Your task to perform on an android device: Go to accessibility settings Image 0: 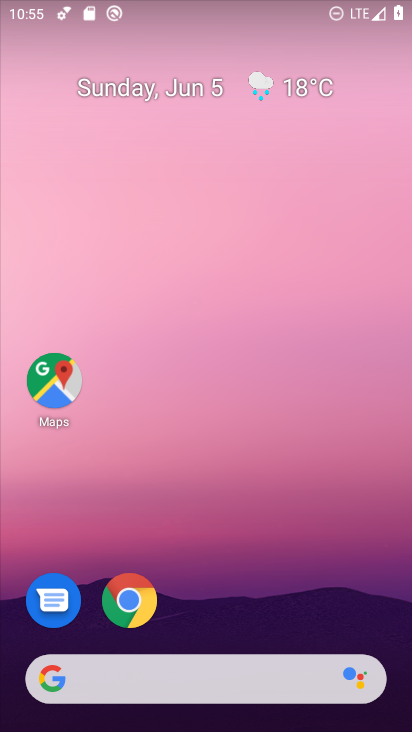
Step 0: drag from (214, 615) to (194, 148)
Your task to perform on an android device: Go to accessibility settings Image 1: 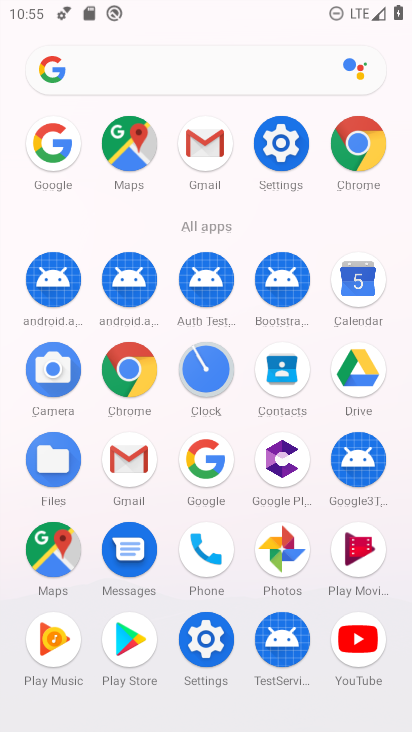
Step 1: click (267, 149)
Your task to perform on an android device: Go to accessibility settings Image 2: 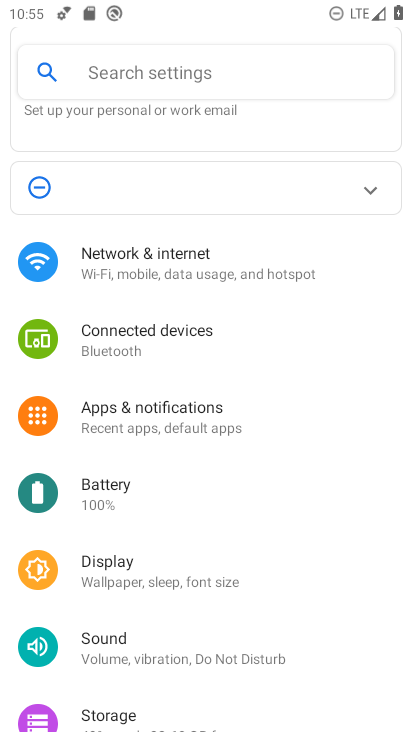
Step 2: drag from (219, 661) to (231, 357)
Your task to perform on an android device: Go to accessibility settings Image 3: 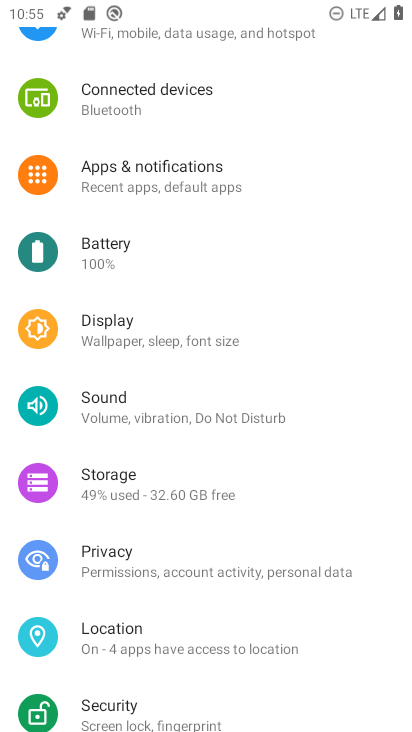
Step 3: drag from (214, 585) to (249, 251)
Your task to perform on an android device: Go to accessibility settings Image 4: 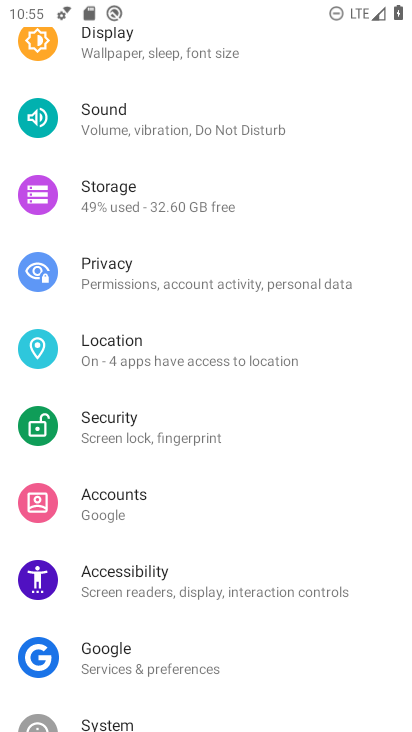
Step 4: click (180, 568)
Your task to perform on an android device: Go to accessibility settings Image 5: 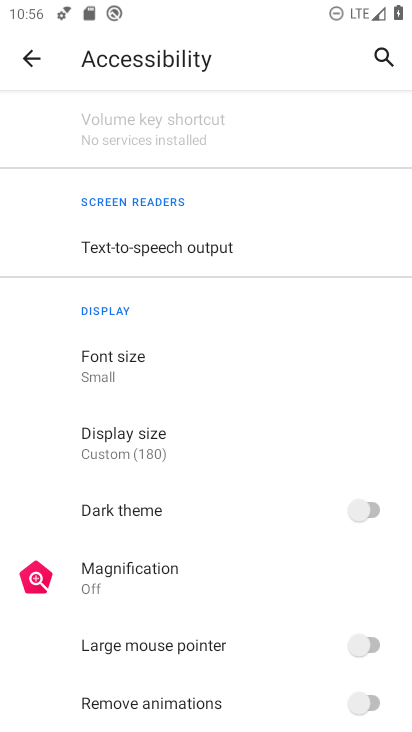
Step 5: task complete